Your task to perform on an android device: see creations saved in the google photos Image 0: 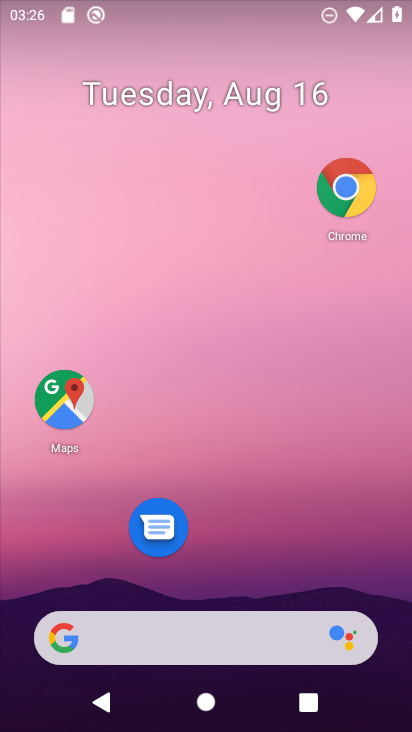
Step 0: press home button
Your task to perform on an android device: see creations saved in the google photos Image 1: 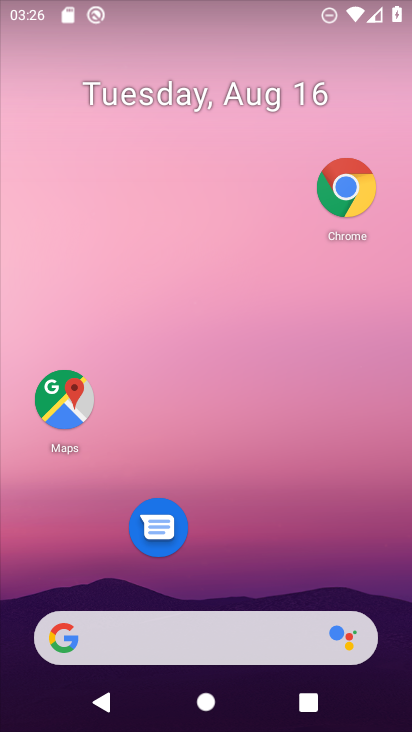
Step 1: drag from (220, 581) to (279, 124)
Your task to perform on an android device: see creations saved in the google photos Image 2: 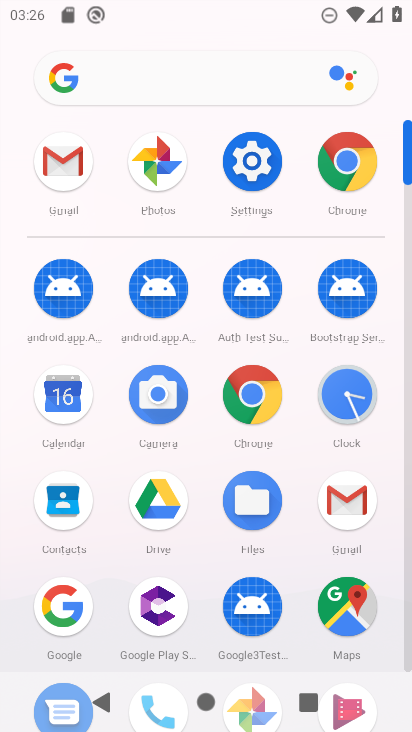
Step 2: drag from (301, 638) to (343, 71)
Your task to perform on an android device: see creations saved in the google photos Image 3: 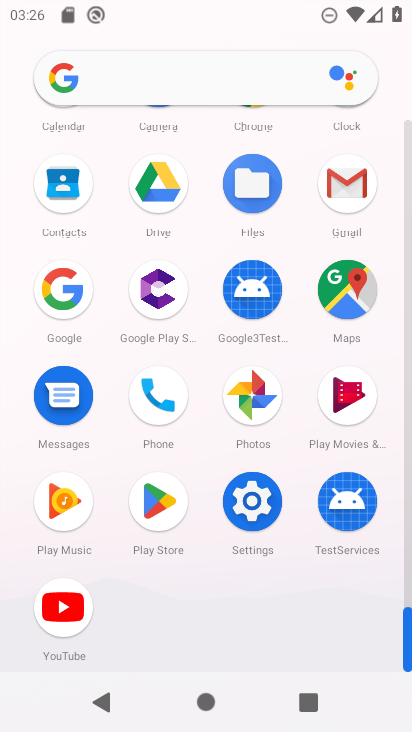
Step 3: click (249, 388)
Your task to perform on an android device: see creations saved in the google photos Image 4: 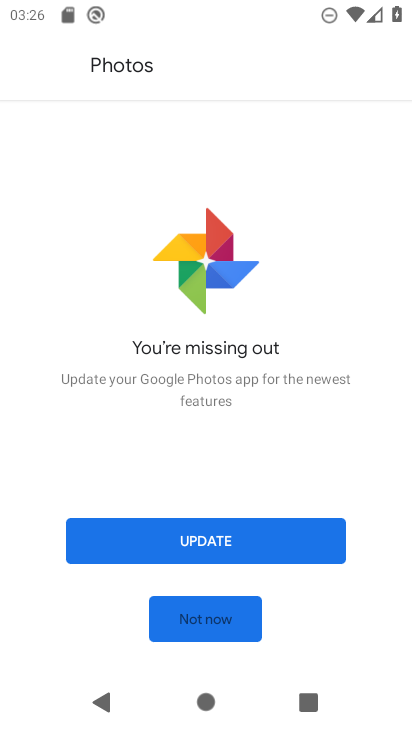
Step 4: click (206, 543)
Your task to perform on an android device: see creations saved in the google photos Image 5: 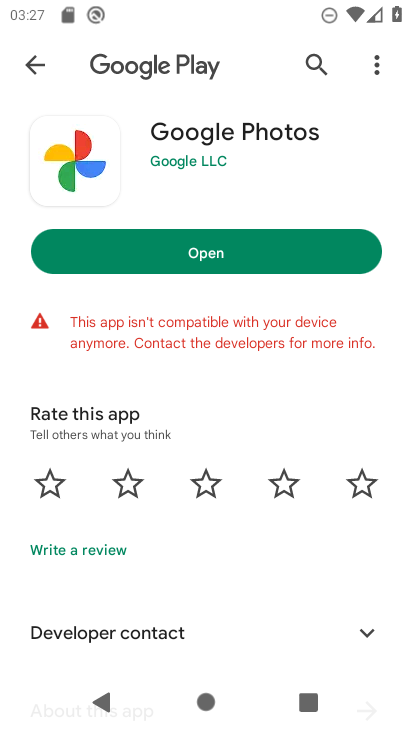
Step 5: click (212, 251)
Your task to perform on an android device: see creations saved in the google photos Image 6: 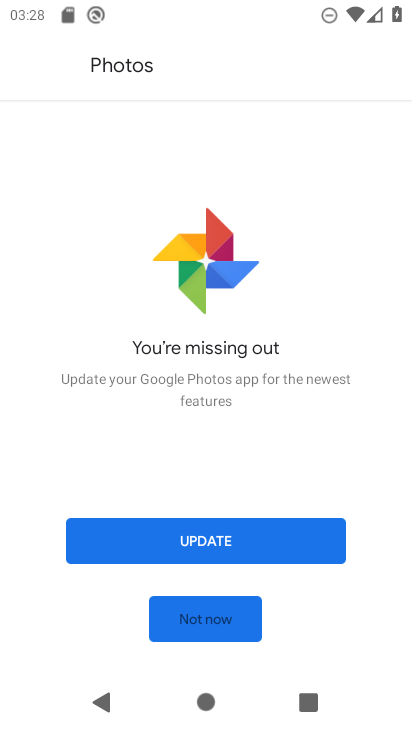
Step 6: click (203, 553)
Your task to perform on an android device: see creations saved in the google photos Image 7: 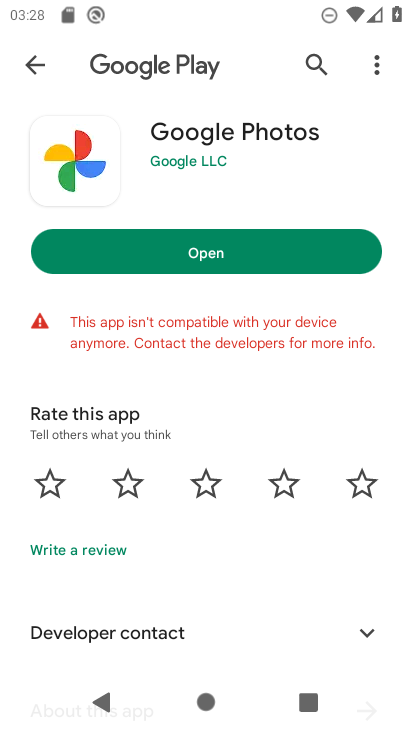
Step 7: task complete